Your task to perform on an android device: Go to accessibility settings Image 0: 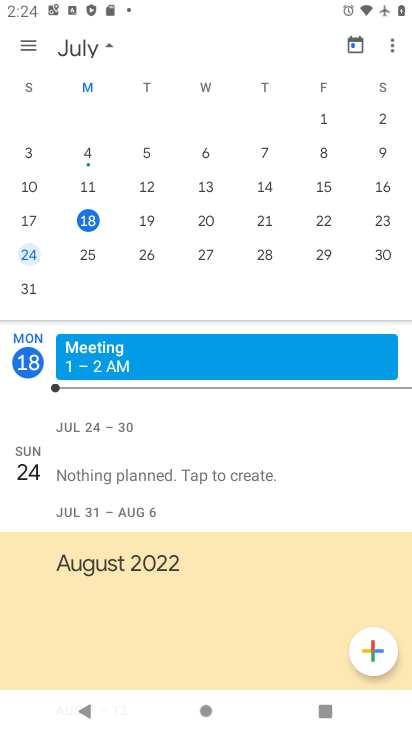
Step 0: press home button
Your task to perform on an android device: Go to accessibility settings Image 1: 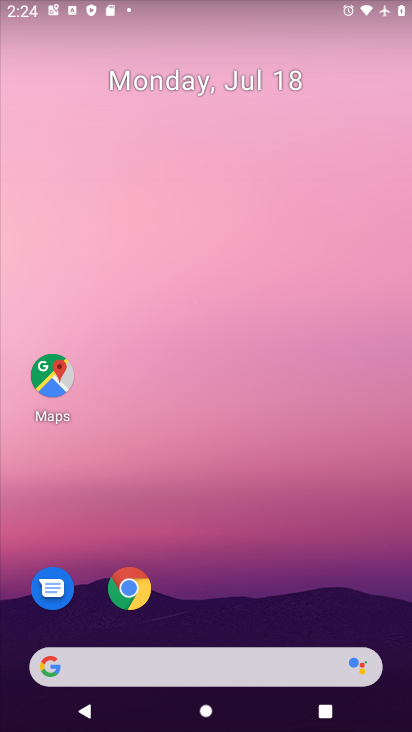
Step 1: drag from (233, 643) to (264, 206)
Your task to perform on an android device: Go to accessibility settings Image 2: 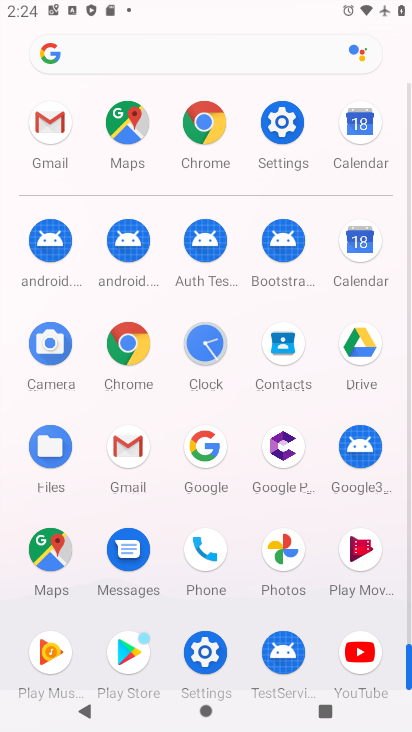
Step 2: click (272, 120)
Your task to perform on an android device: Go to accessibility settings Image 3: 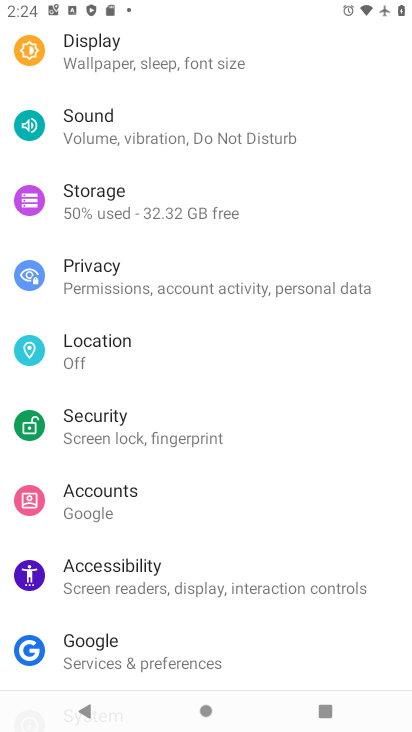
Step 3: click (166, 571)
Your task to perform on an android device: Go to accessibility settings Image 4: 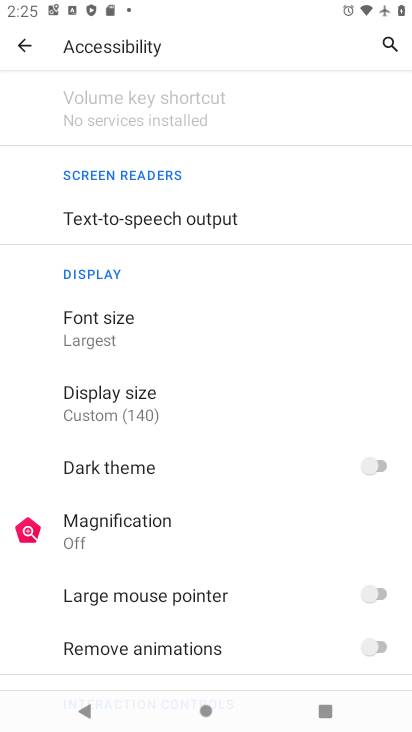
Step 4: task complete